Your task to perform on an android device: Go to Reddit.com Image 0: 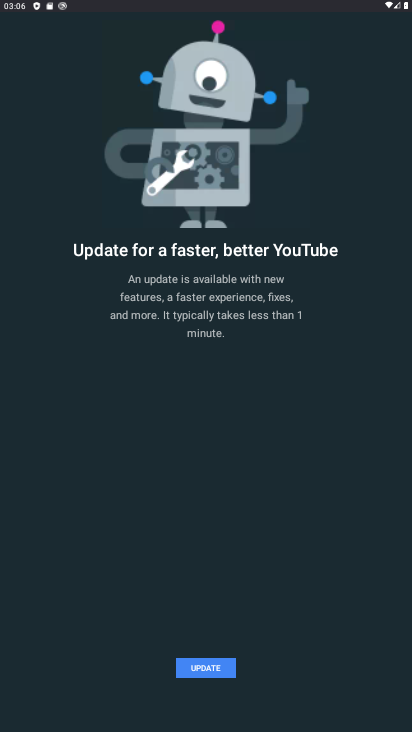
Step 0: press home button
Your task to perform on an android device: Go to Reddit.com Image 1: 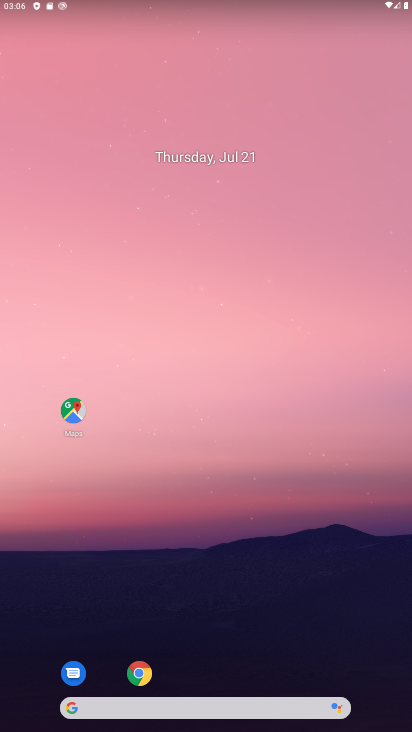
Step 1: click (144, 668)
Your task to perform on an android device: Go to Reddit.com Image 2: 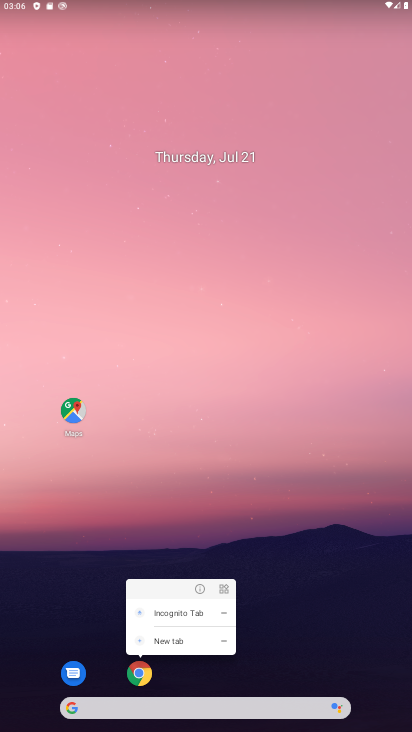
Step 2: click (144, 674)
Your task to perform on an android device: Go to Reddit.com Image 3: 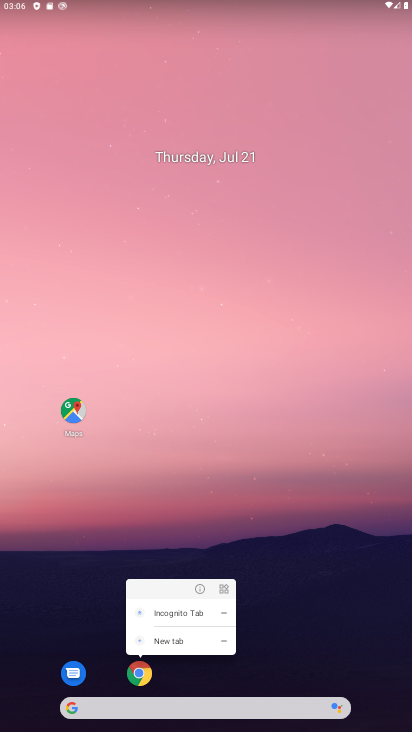
Step 3: click (142, 670)
Your task to perform on an android device: Go to Reddit.com Image 4: 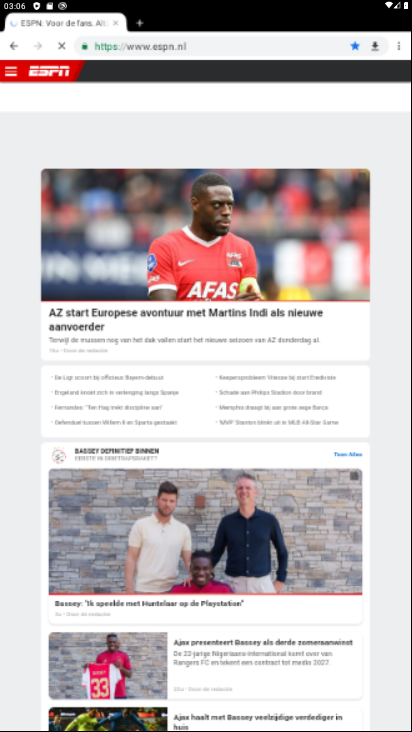
Step 4: click (141, 671)
Your task to perform on an android device: Go to Reddit.com Image 5: 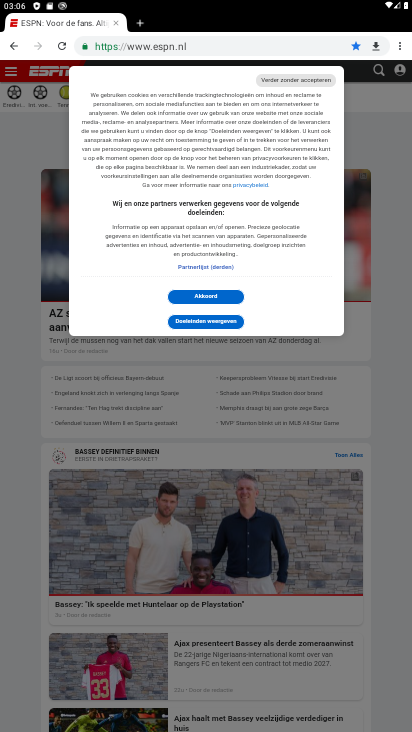
Step 5: click (242, 47)
Your task to perform on an android device: Go to Reddit.com Image 6: 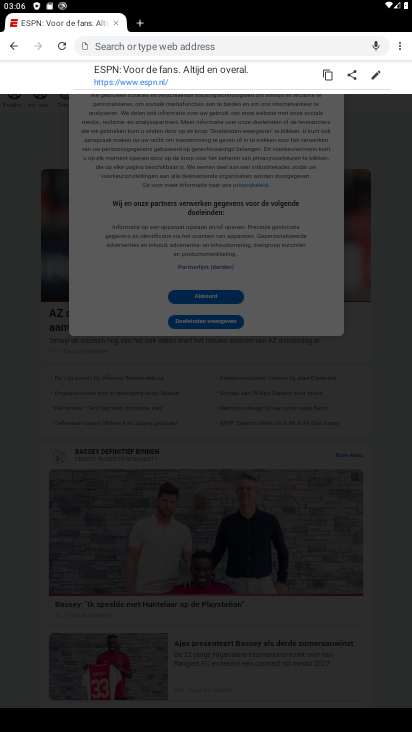
Step 6: type "reddit.com"
Your task to perform on an android device: Go to Reddit.com Image 7: 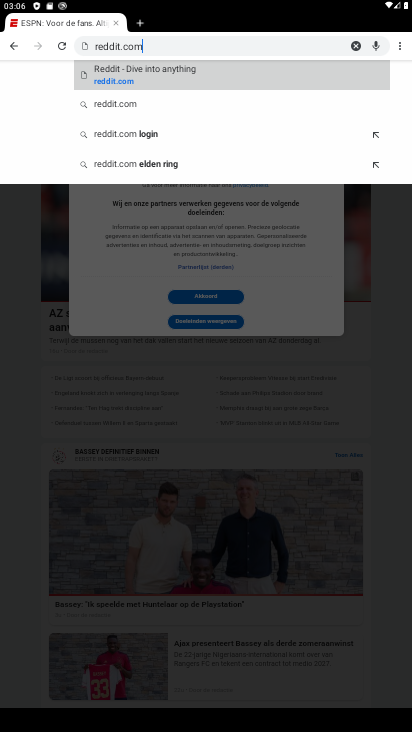
Step 7: click (120, 79)
Your task to perform on an android device: Go to Reddit.com Image 8: 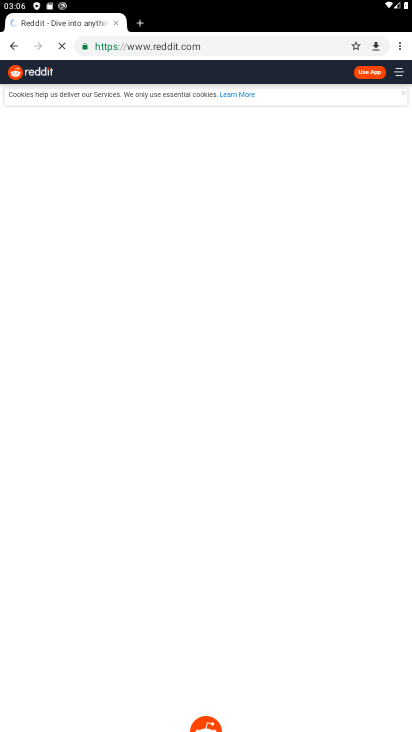
Step 8: task complete